Your task to perform on an android device: What's on my calendar tomorrow? Image 0: 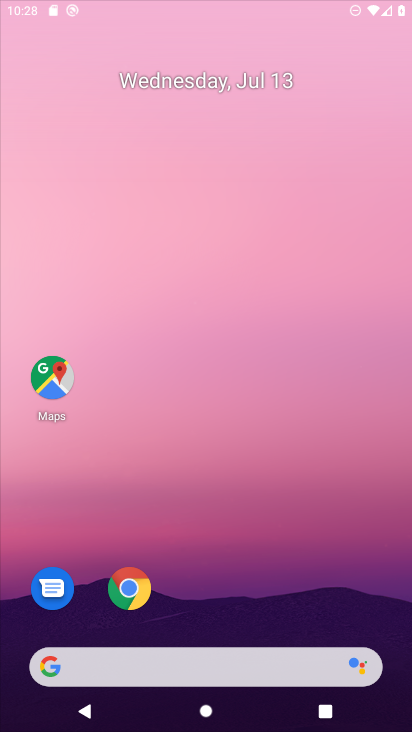
Step 0: drag from (216, 627) to (214, 124)
Your task to perform on an android device: What's on my calendar tomorrow? Image 1: 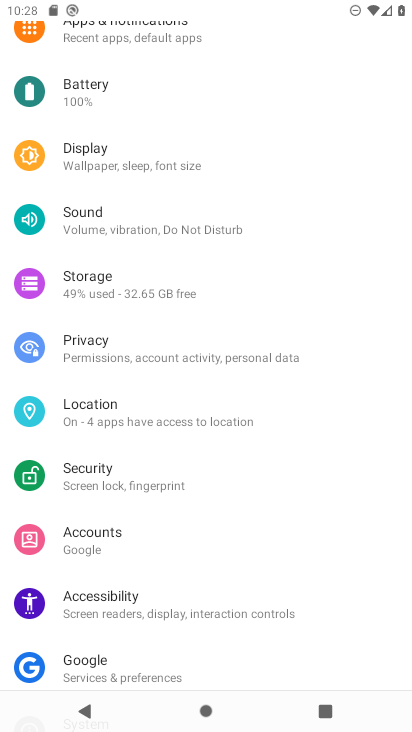
Step 1: press home button
Your task to perform on an android device: What's on my calendar tomorrow? Image 2: 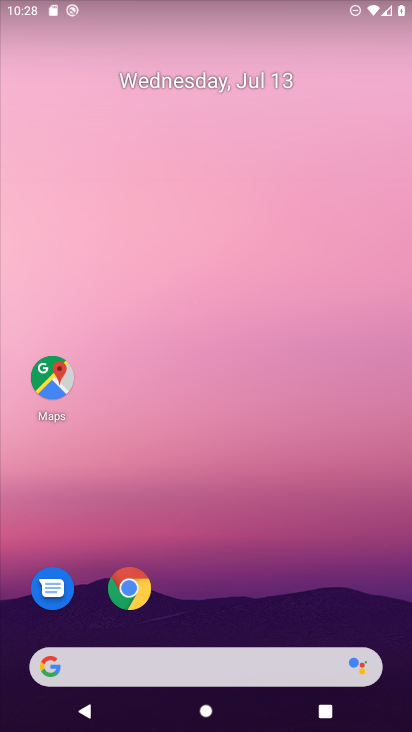
Step 2: drag from (227, 628) to (206, 170)
Your task to perform on an android device: What's on my calendar tomorrow? Image 3: 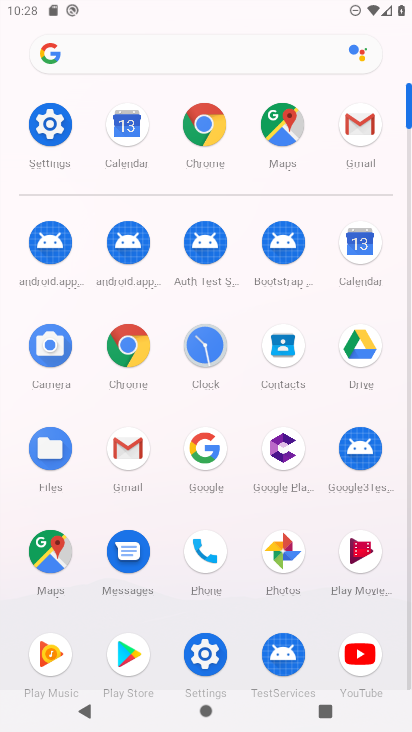
Step 3: click (356, 254)
Your task to perform on an android device: What's on my calendar tomorrow? Image 4: 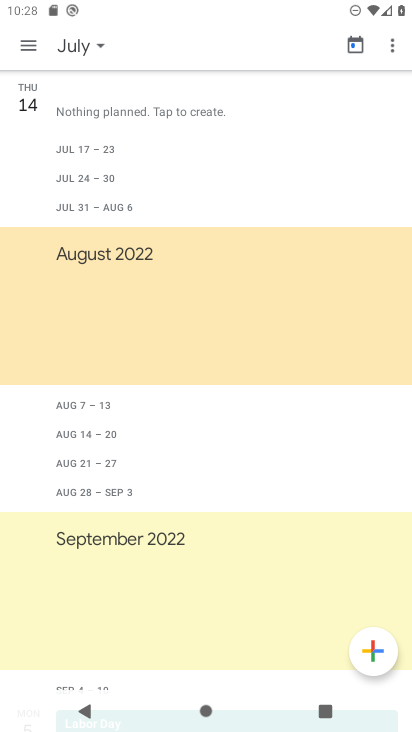
Step 4: click (361, 51)
Your task to perform on an android device: What's on my calendar tomorrow? Image 5: 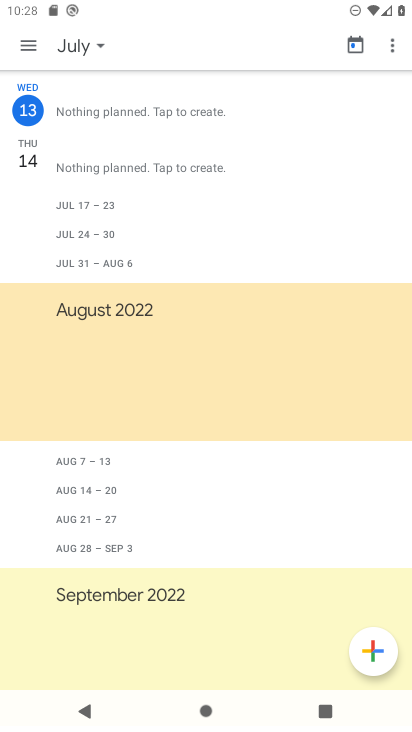
Step 5: click (30, 146)
Your task to perform on an android device: What's on my calendar tomorrow? Image 6: 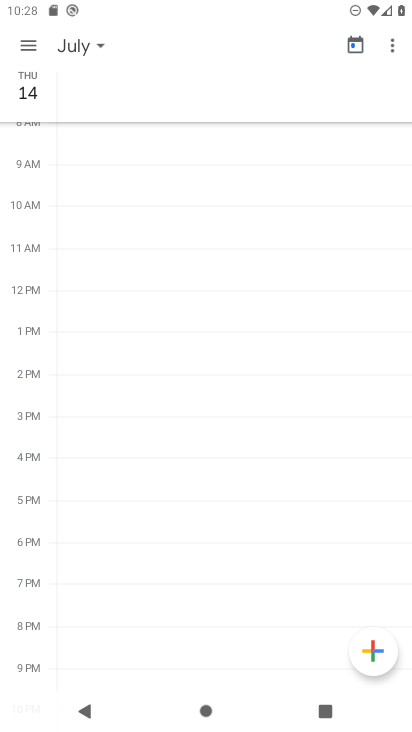
Step 6: task complete